Your task to perform on an android device: turn off notifications in google photos Image 0: 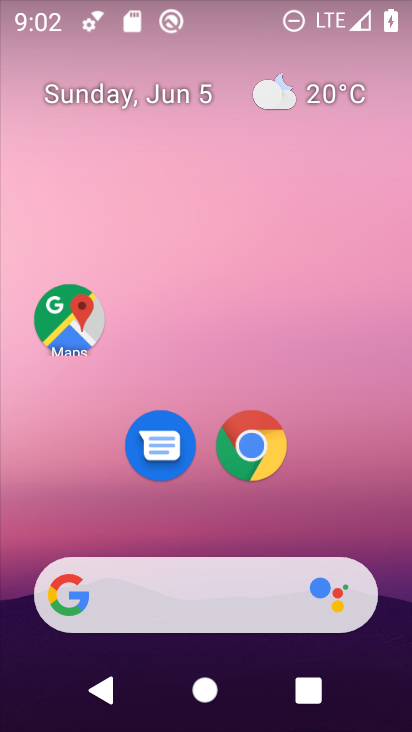
Step 0: drag from (299, 631) to (347, 17)
Your task to perform on an android device: turn off notifications in google photos Image 1: 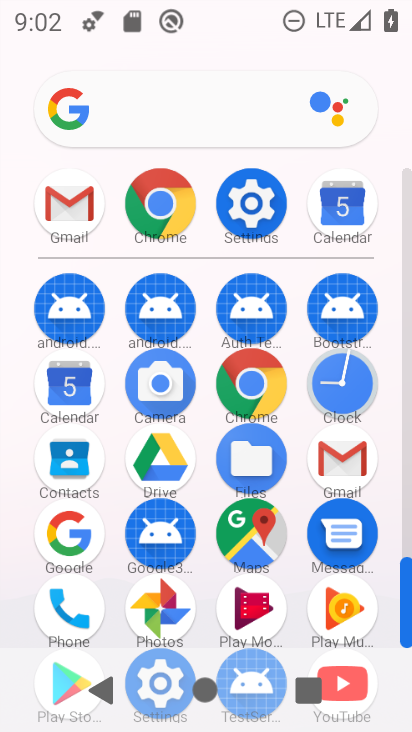
Step 1: click (176, 606)
Your task to perform on an android device: turn off notifications in google photos Image 2: 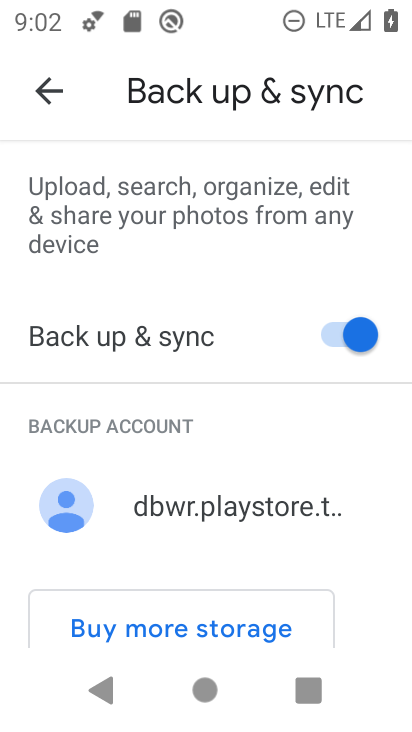
Step 2: drag from (280, 559) to (324, 109)
Your task to perform on an android device: turn off notifications in google photos Image 3: 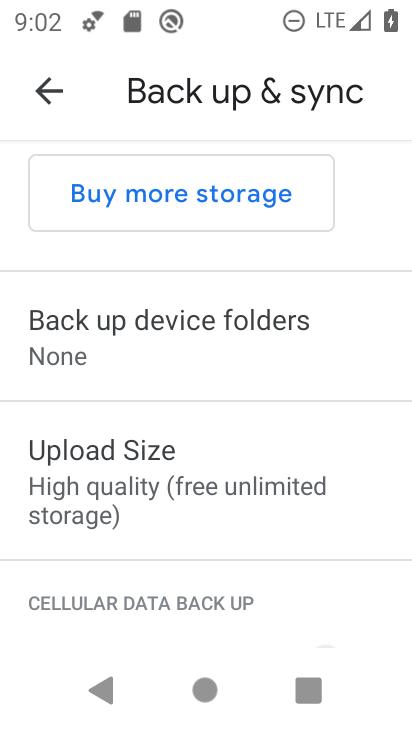
Step 3: drag from (274, 587) to (296, 144)
Your task to perform on an android device: turn off notifications in google photos Image 4: 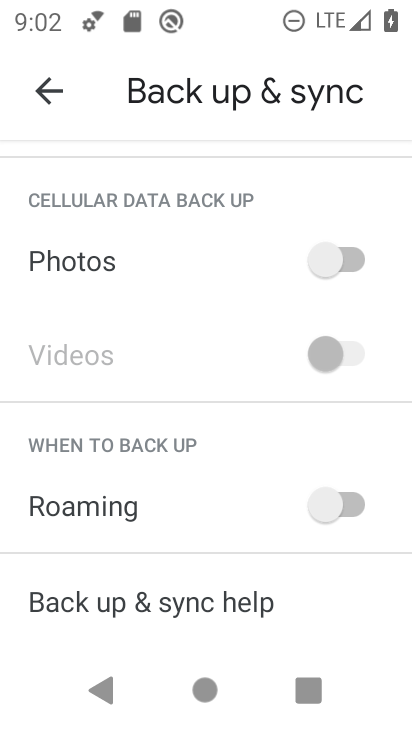
Step 4: drag from (209, 615) to (187, 197)
Your task to perform on an android device: turn off notifications in google photos Image 5: 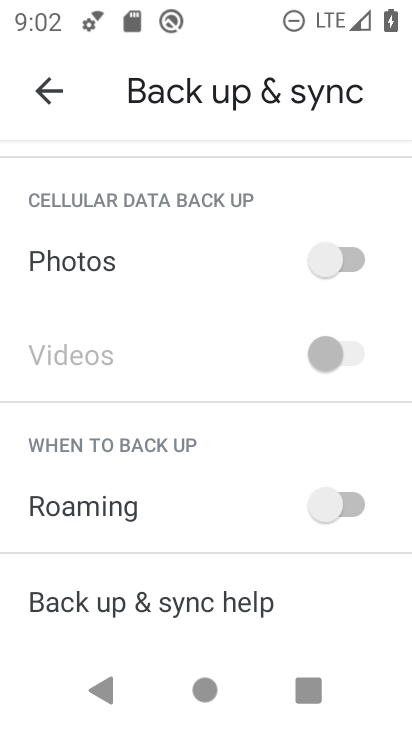
Step 5: drag from (206, 257) to (190, 730)
Your task to perform on an android device: turn off notifications in google photos Image 6: 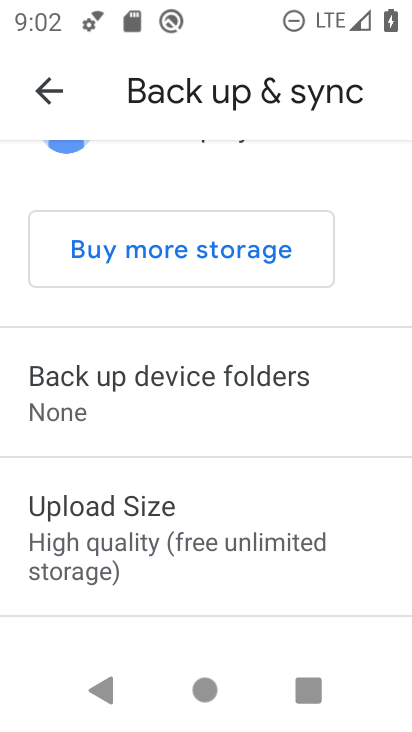
Step 6: drag from (240, 332) to (239, 687)
Your task to perform on an android device: turn off notifications in google photos Image 7: 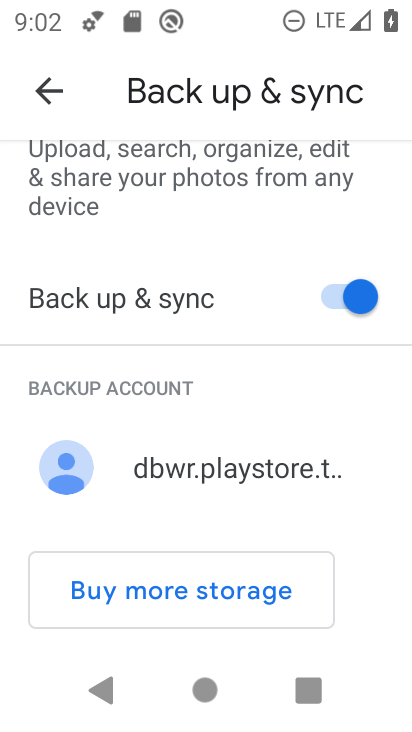
Step 7: drag from (271, 253) to (260, 537)
Your task to perform on an android device: turn off notifications in google photos Image 8: 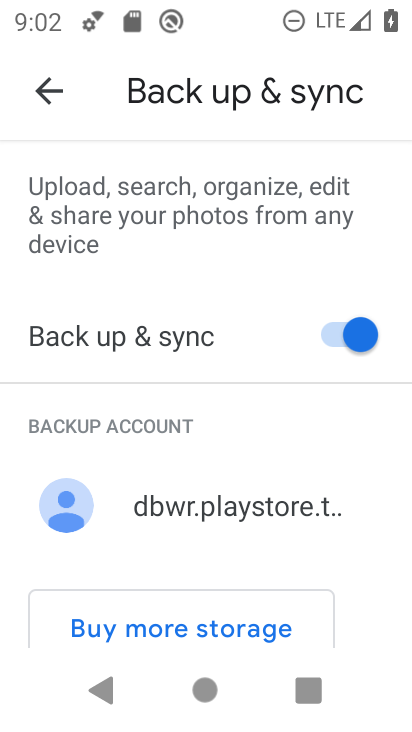
Step 8: press back button
Your task to perform on an android device: turn off notifications in google photos Image 9: 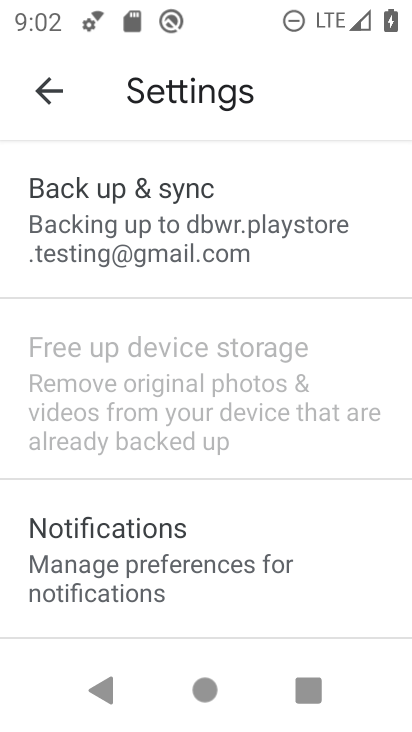
Step 9: click (211, 548)
Your task to perform on an android device: turn off notifications in google photos Image 10: 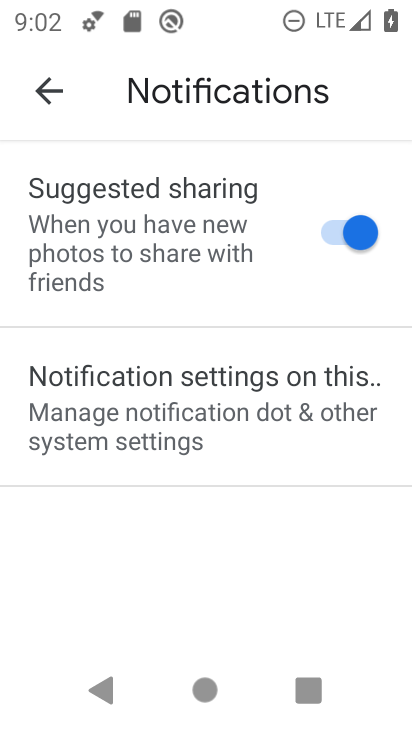
Step 10: click (264, 392)
Your task to perform on an android device: turn off notifications in google photos Image 11: 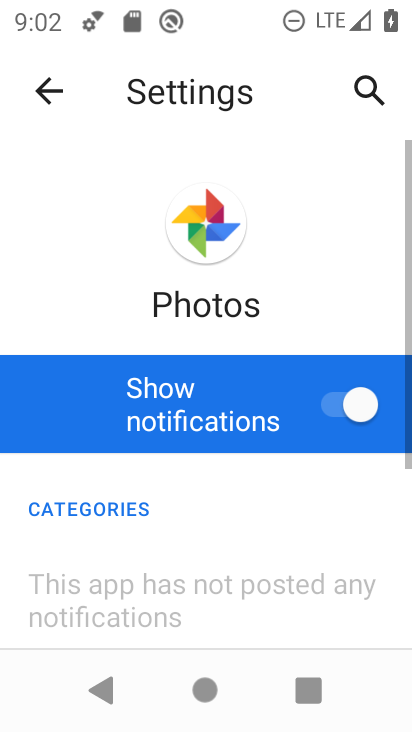
Step 11: click (357, 404)
Your task to perform on an android device: turn off notifications in google photos Image 12: 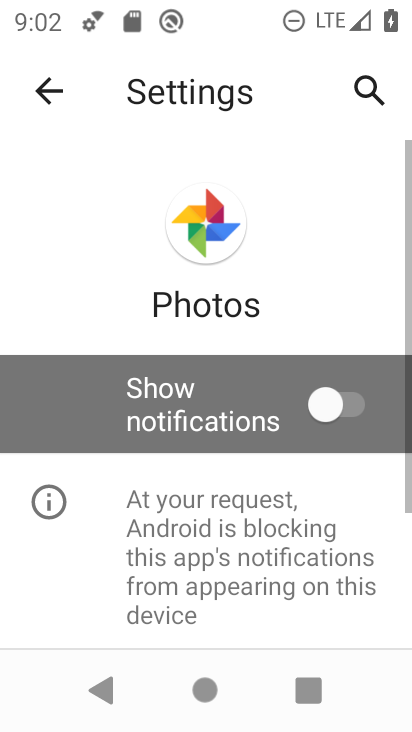
Step 12: task complete